Your task to perform on an android device: Do I have any events this weekend? Image 0: 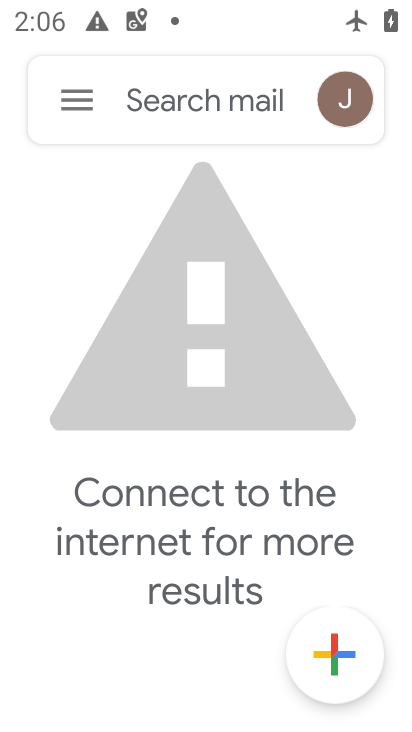
Step 0: press home button
Your task to perform on an android device: Do I have any events this weekend? Image 1: 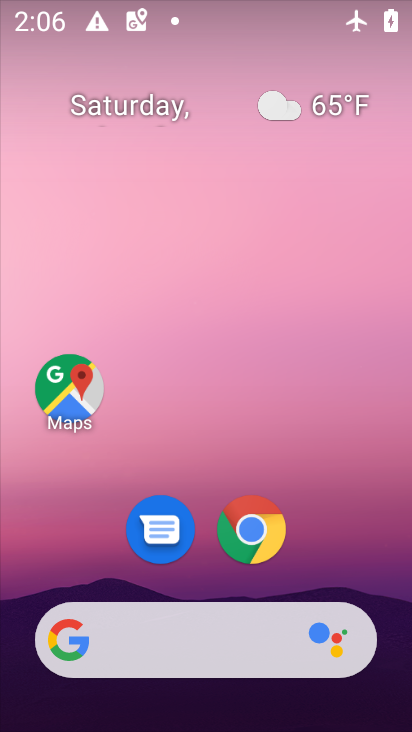
Step 1: drag from (347, 538) to (254, 152)
Your task to perform on an android device: Do I have any events this weekend? Image 2: 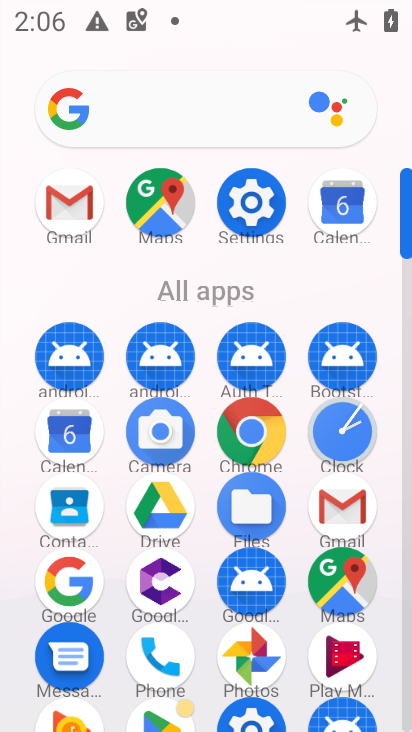
Step 2: click (354, 220)
Your task to perform on an android device: Do I have any events this weekend? Image 3: 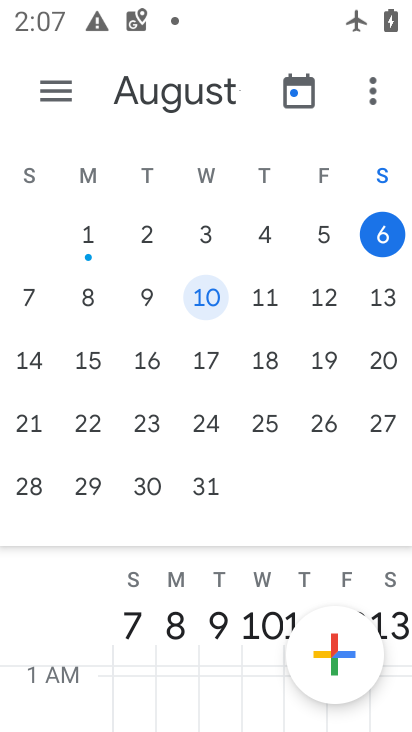
Step 3: click (325, 226)
Your task to perform on an android device: Do I have any events this weekend? Image 4: 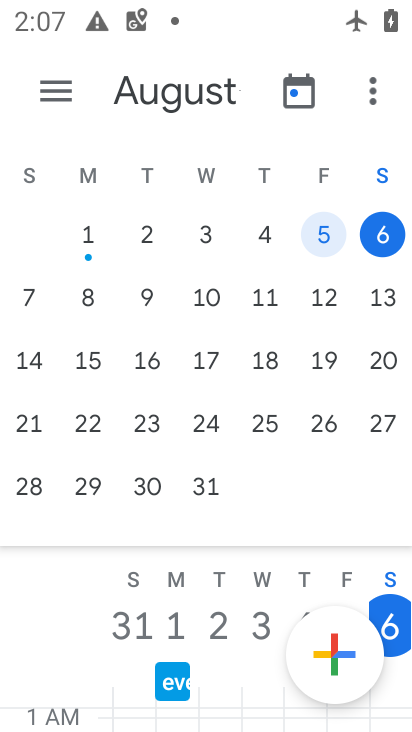
Step 4: click (42, 78)
Your task to perform on an android device: Do I have any events this weekend? Image 5: 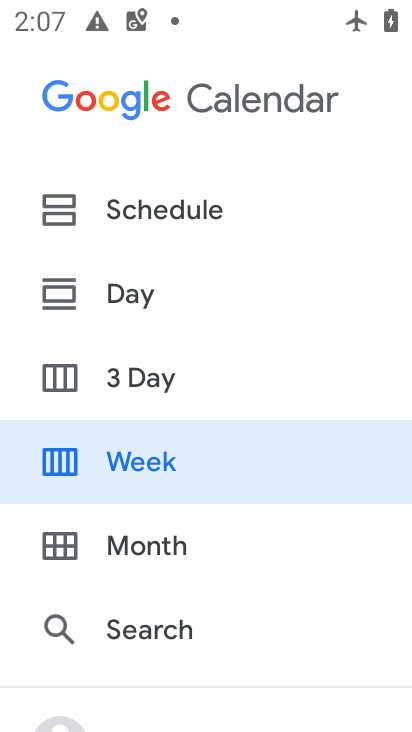
Step 5: click (114, 365)
Your task to perform on an android device: Do I have any events this weekend? Image 6: 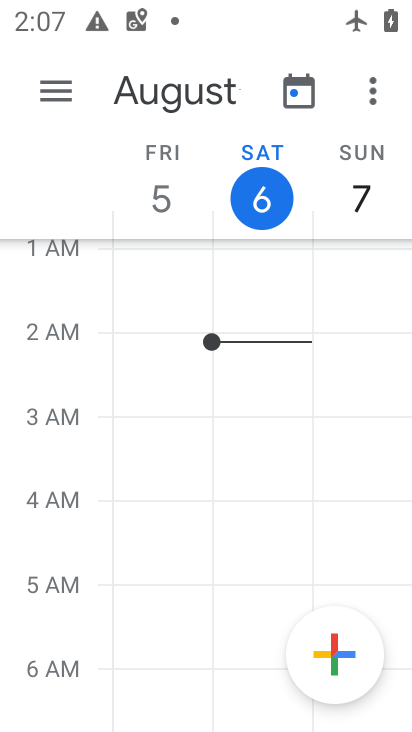
Step 6: task complete